Your task to perform on an android device: turn notification dots on Image 0: 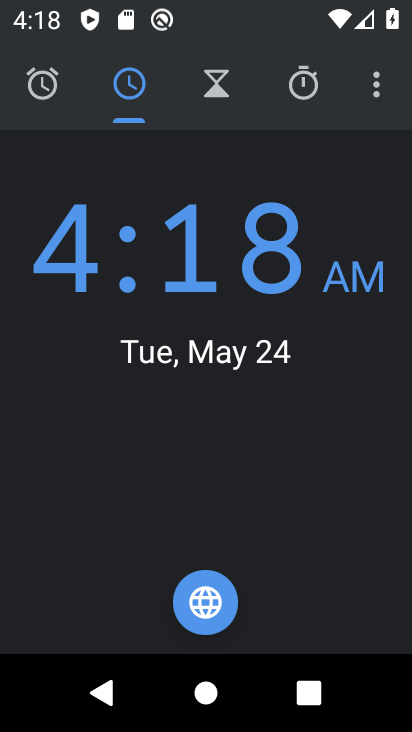
Step 0: press home button
Your task to perform on an android device: turn notification dots on Image 1: 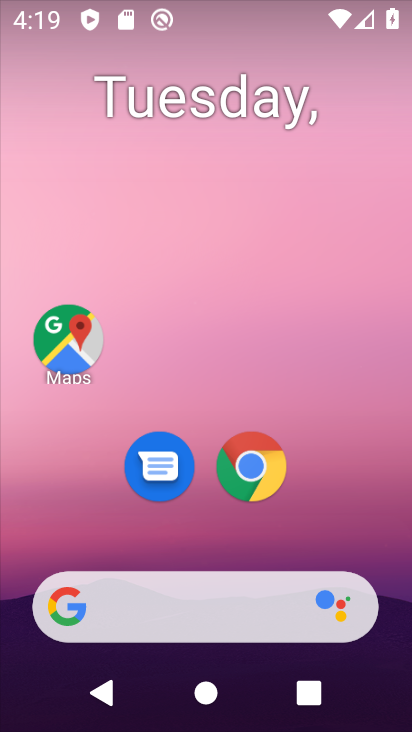
Step 1: drag from (94, 562) to (238, 31)
Your task to perform on an android device: turn notification dots on Image 2: 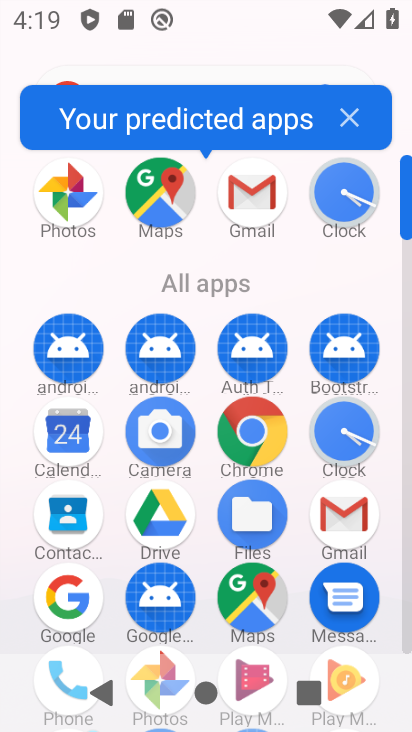
Step 2: drag from (146, 649) to (296, 306)
Your task to perform on an android device: turn notification dots on Image 3: 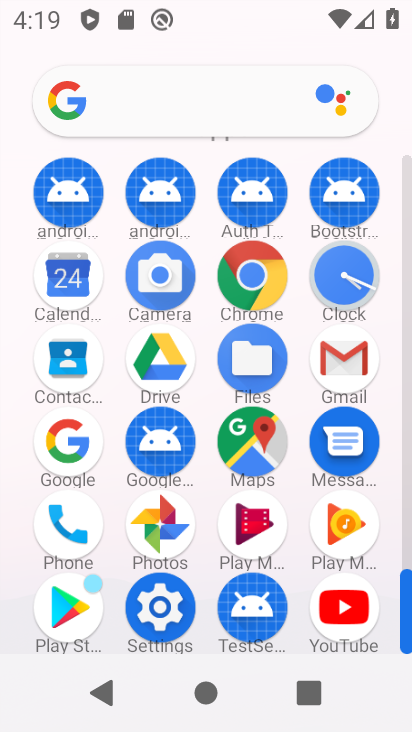
Step 3: click (162, 617)
Your task to perform on an android device: turn notification dots on Image 4: 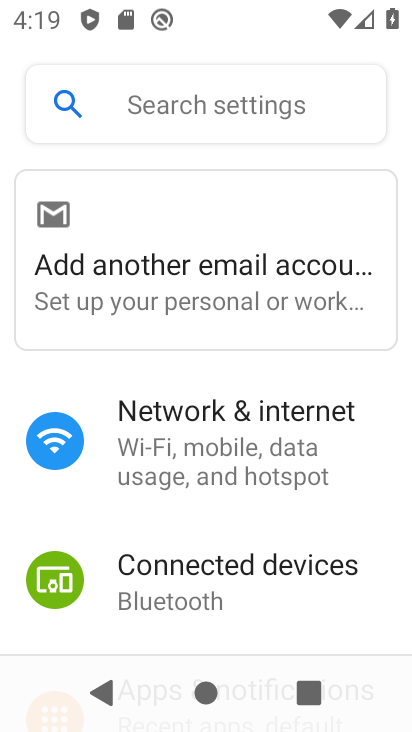
Step 4: drag from (176, 547) to (368, 155)
Your task to perform on an android device: turn notification dots on Image 5: 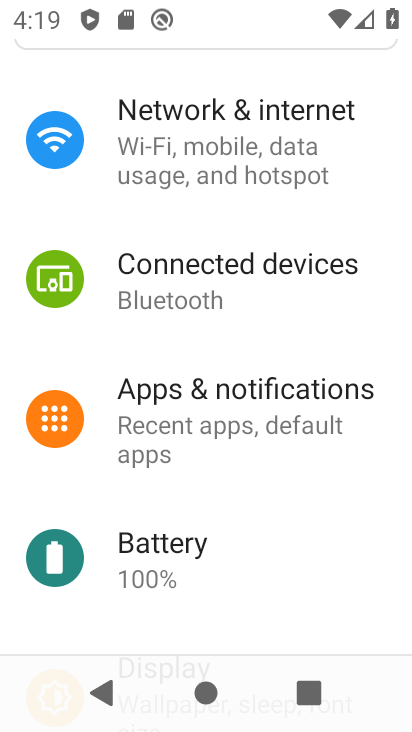
Step 5: click (303, 429)
Your task to perform on an android device: turn notification dots on Image 6: 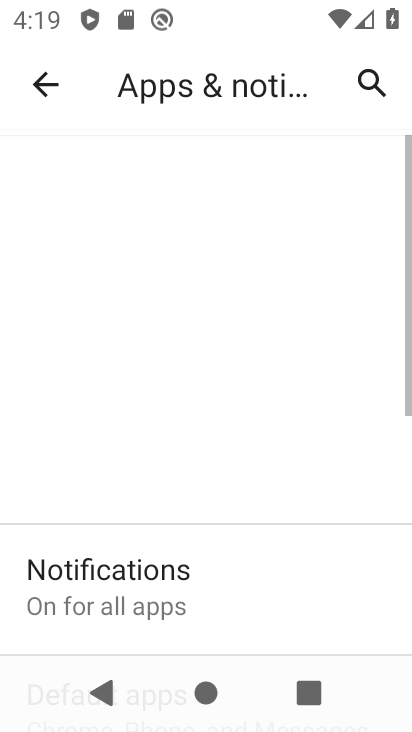
Step 6: drag from (262, 588) to (370, 324)
Your task to perform on an android device: turn notification dots on Image 7: 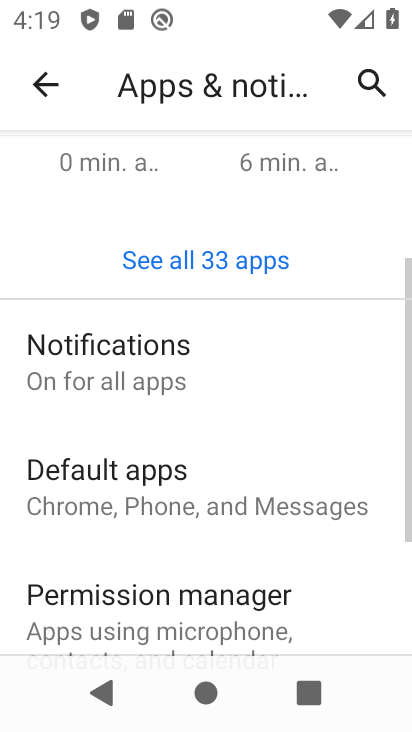
Step 7: drag from (167, 583) to (252, 405)
Your task to perform on an android device: turn notification dots on Image 8: 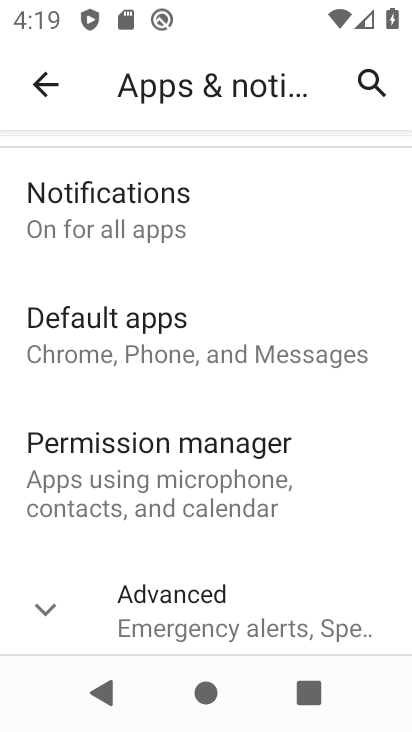
Step 8: click (192, 232)
Your task to perform on an android device: turn notification dots on Image 9: 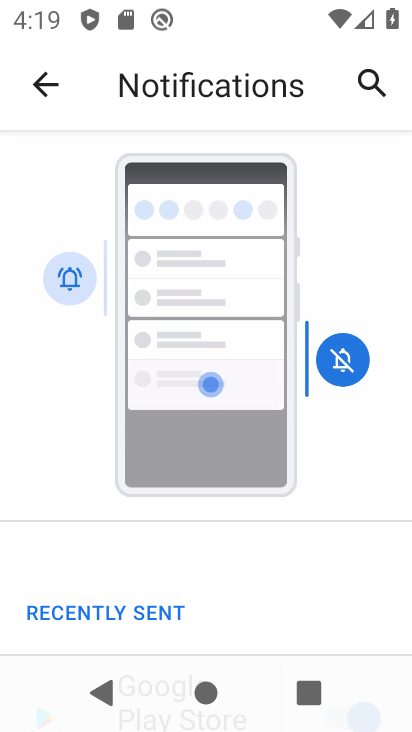
Step 9: drag from (218, 549) to (400, 82)
Your task to perform on an android device: turn notification dots on Image 10: 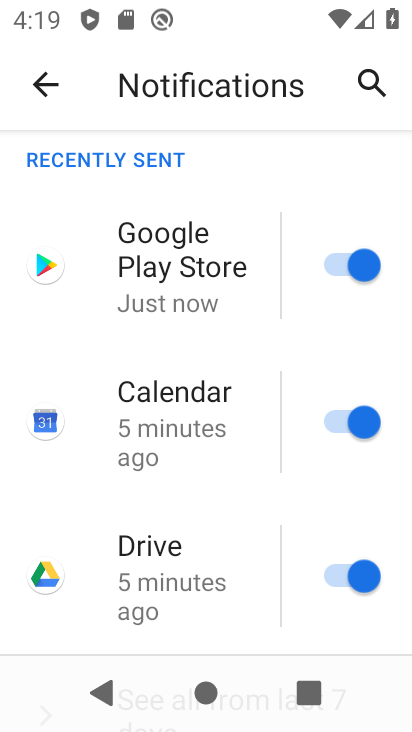
Step 10: drag from (150, 603) to (405, 127)
Your task to perform on an android device: turn notification dots on Image 11: 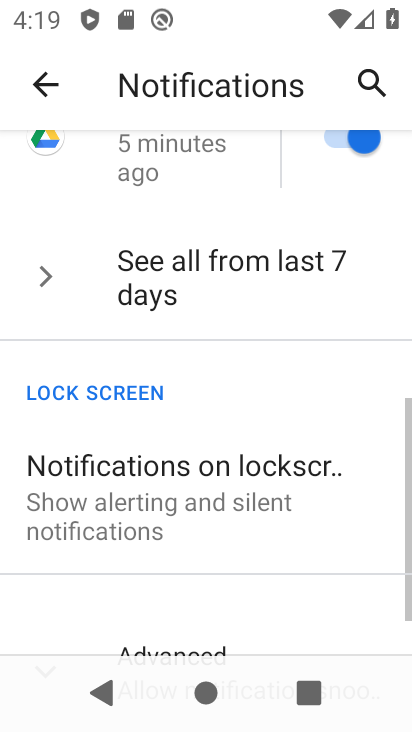
Step 11: drag from (208, 561) to (302, 318)
Your task to perform on an android device: turn notification dots on Image 12: 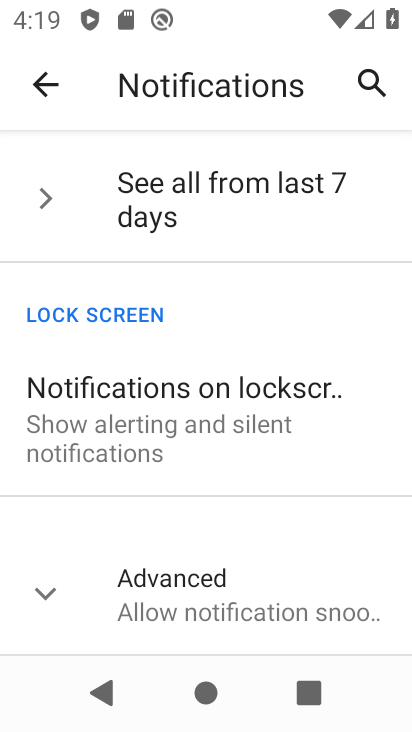
Step 12: click (253, 623)
Your task to perform on an android device: turn notification dots on Image 13: 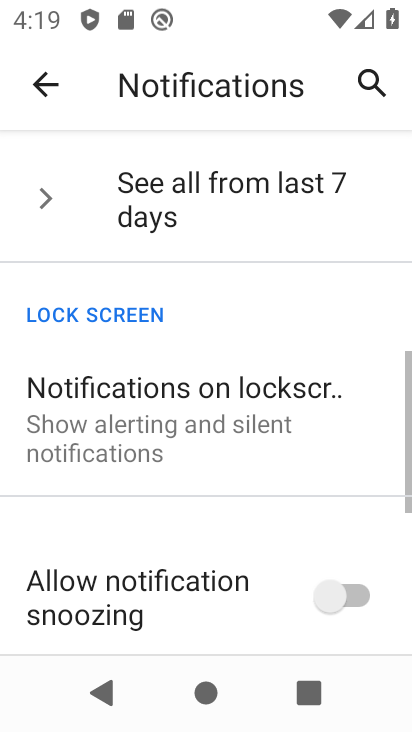
Step 13: task complete